Your task to perform on an android device: turn off airplane mode Image 0: 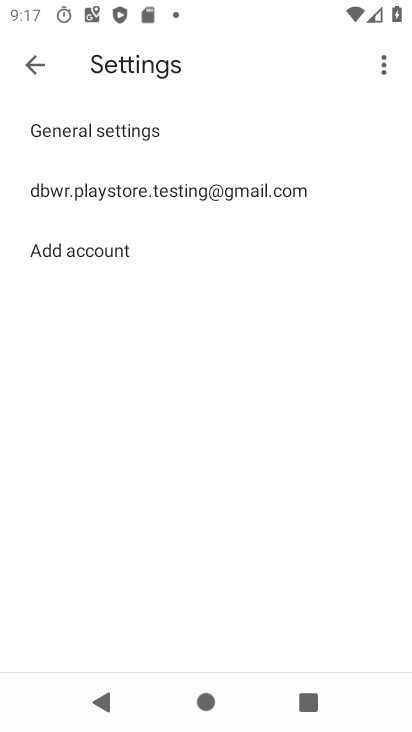
Step 0: press home button
Your task to perform on an android device: turn off airplane mode Image 1: 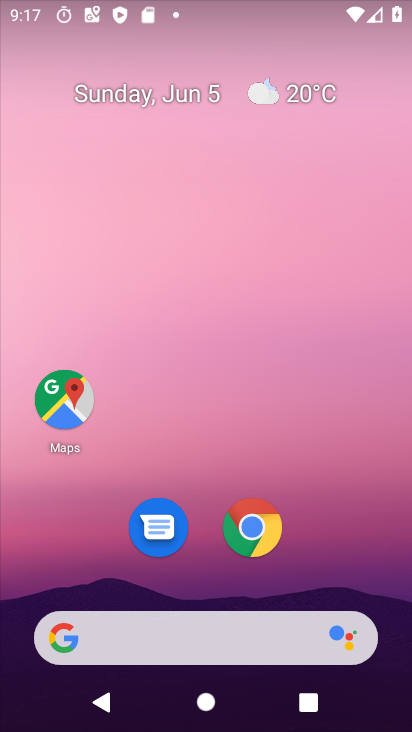
Step 1: drag from (289, 518) to (12, 546)
Your task to perform on an android device: turn off airplane mode Image 2: 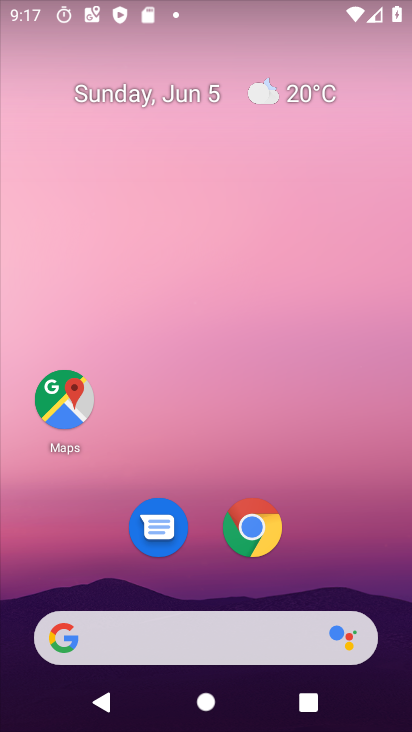
Step 2: drag from (318, 514) to (269, 5)
Your task to perform on an android device: turn off airplane mode Image 3: 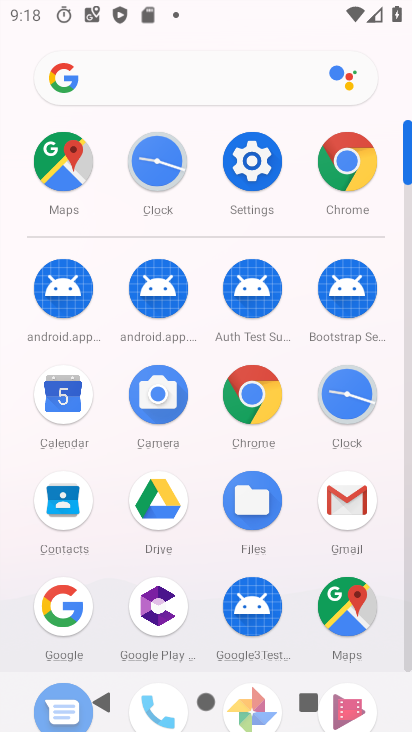
Step 3: click (242, 162)
Your task to perform on an android device: turn off airplane mode Image 4: 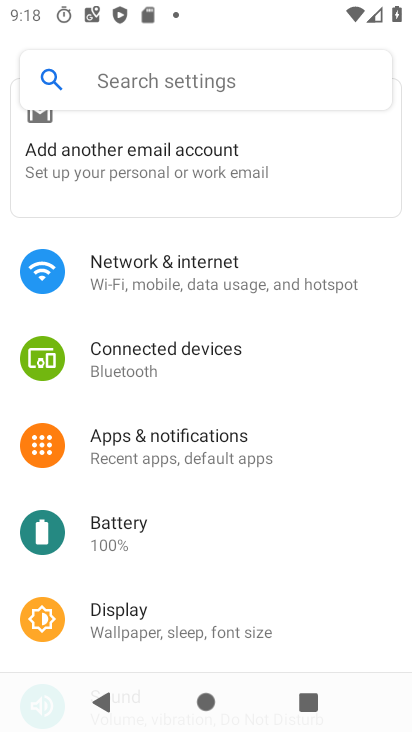
Step 4: click (170, 280)
Your task to perform on an android device: turn off airplane mode Image 5: 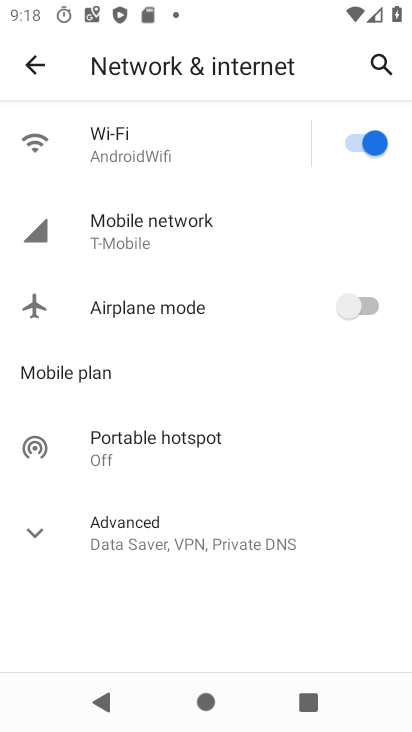
Step 5: task complete